Your task to perform on an android device: Open the calendar app Image 0: 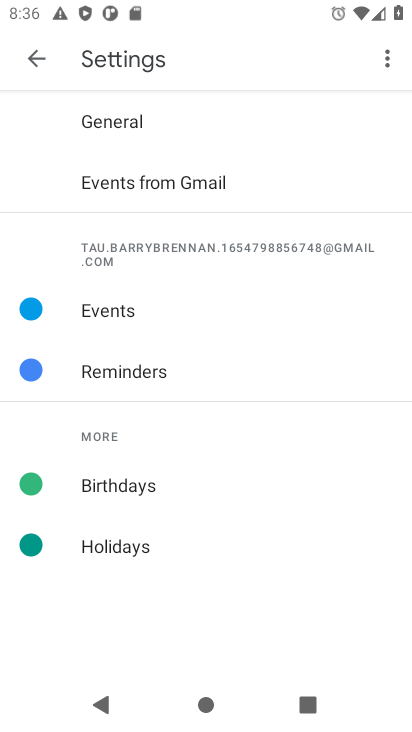
Step 0: press home button
Your task to perform on an android device: Open the calendar app Image 1: 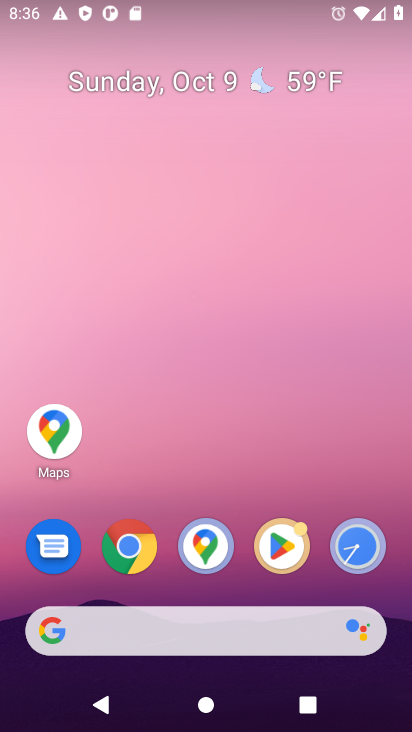
Step 1: drag from (222, 508) to (230, 212)
Your task to perform on an android device: Open the calendar app Image 2: 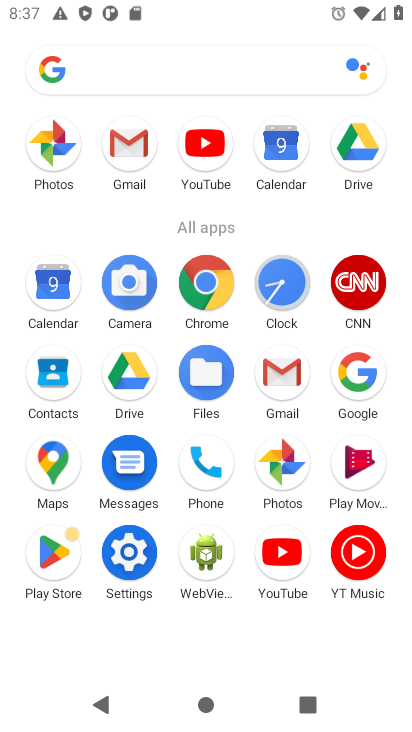
Step 2: click (61, 296)
Your task to perform on an android device: Open the calendar app Image 3: 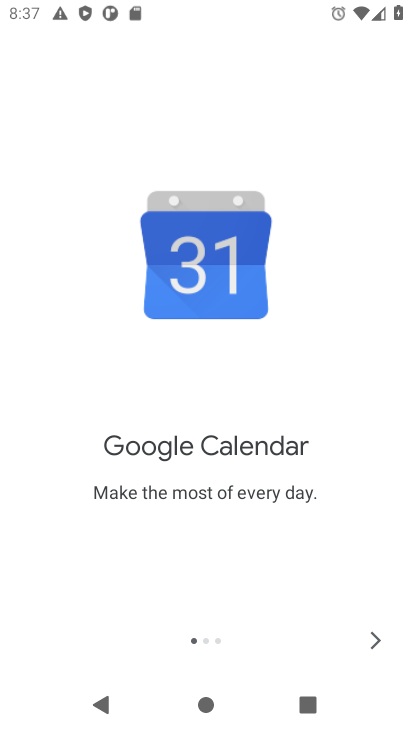
Step 3: click (367, 646)
Your task to perform on an android device: Open the calendar app Image 4: 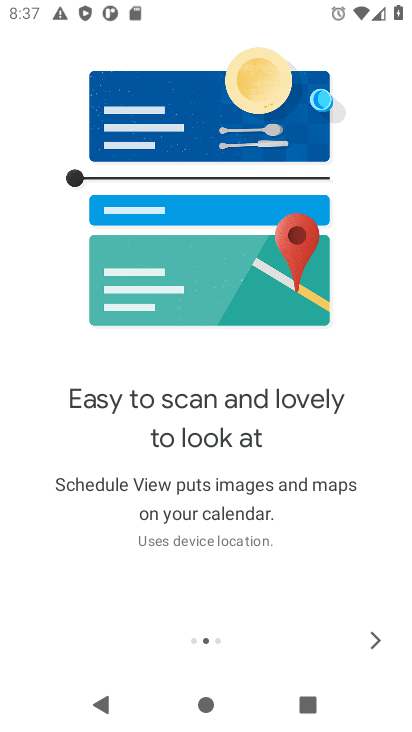
Step 4: click (367, 646)
Your task to perform on an android device: Open the calendar app Image 5: 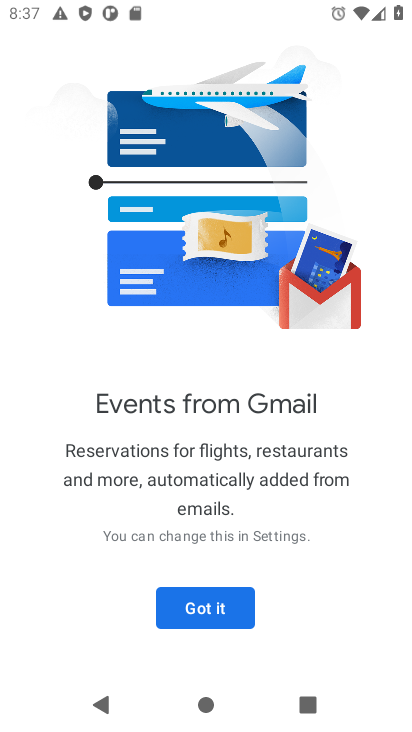
Step 5: click (367, 646)
Your task to perform on an android device: Open the calendar app Image 6: 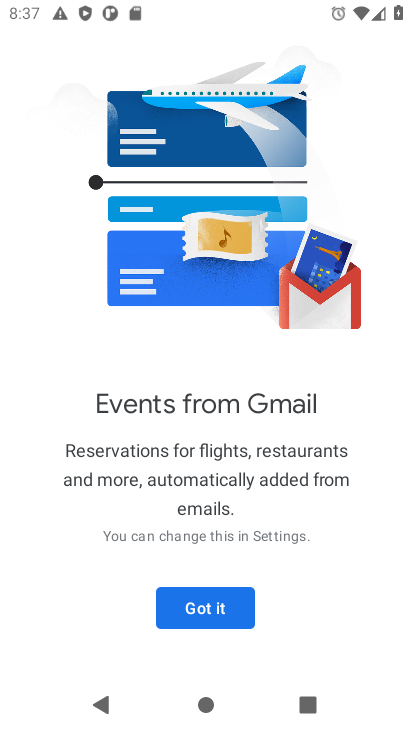
Step 6: click (215, 624)
Your task to perform on an android device: Open the calendar app Image 7: 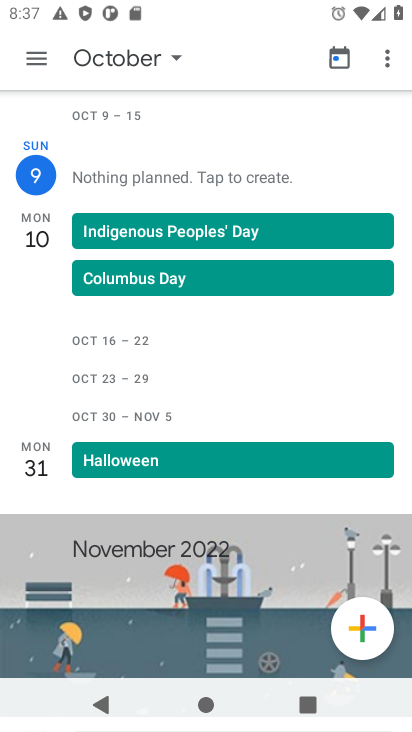
Step 7: task complete